Your task to perform on an android device: toggle airplane mode Image 0: 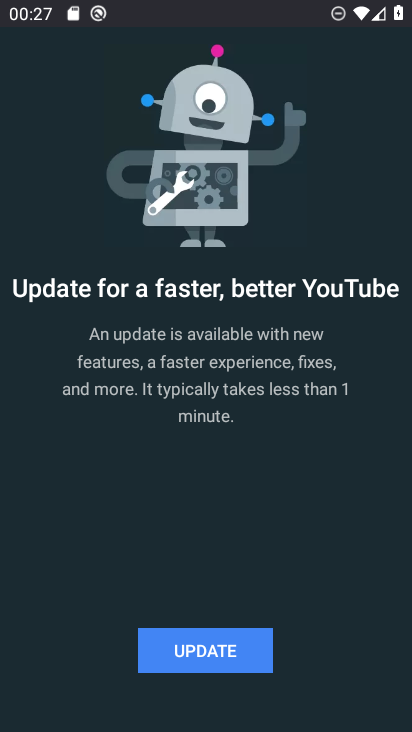
Step 0: press home button
Your task to perform on an android device: toggle airplane mode Image 1: 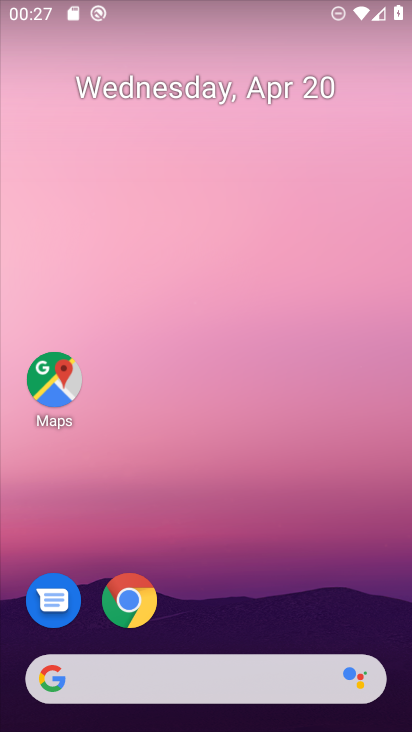
Step 1: drag from (383, 605) to (379, 189)
Your task to perform on an android device: toggle airplane mode Image 2: 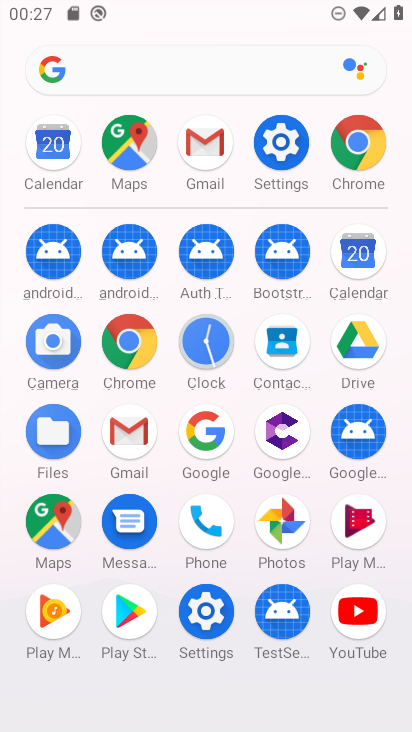
Step 2: click (267, 155)
Your task to perform on an android device: toggle airplane mode Image 3: 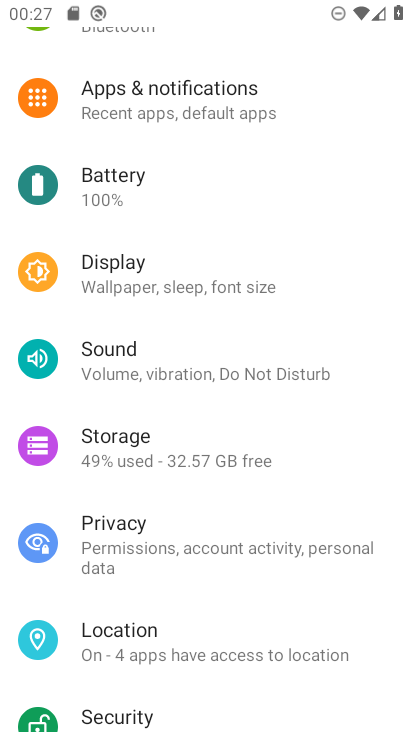
Step 3: drag from (331, 585) to (360, 261)
Your task to perform on an android device: toggle airplane mode Image 4: 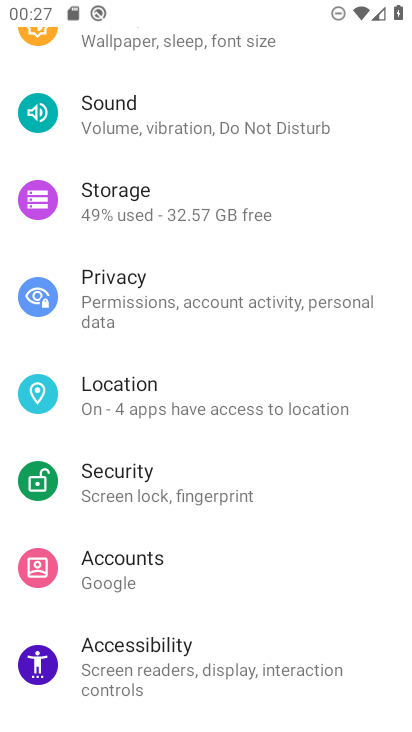
Step 4: drag from (317, 204) to (320, 496)
Your task to perform on an android device: toggle airplane mode Image 5: 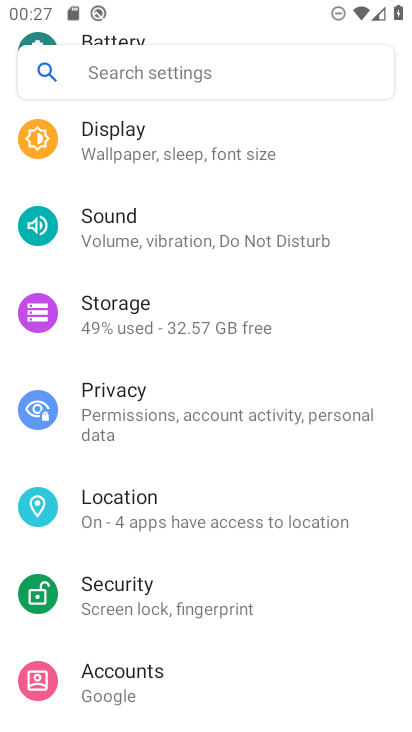
Step 5: drag from (309, 141) to (325, 572)
Your task to perform on an android device: toggle airplane mode Image 6: 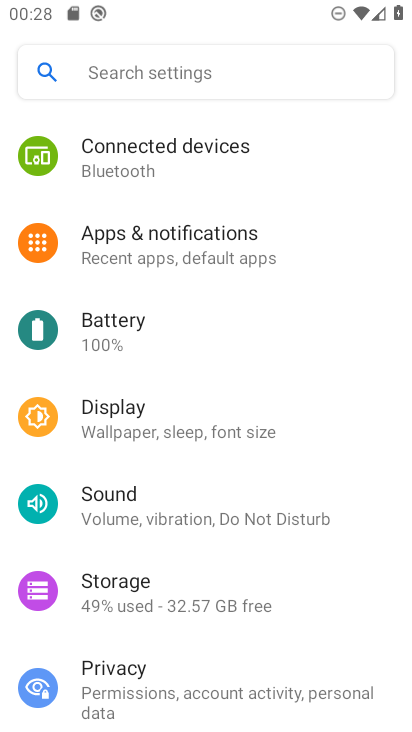
Step 6: drag from (305, 378) to (314, 579)
Your task to perform on an android device: toggle airplane mode Image 7: 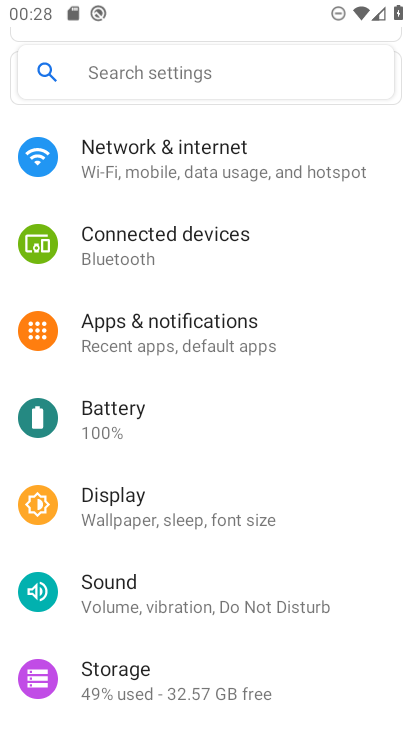
Step 7: click (202, 163)
Your task to perform on an android device: toggle airplane mode Image 8: 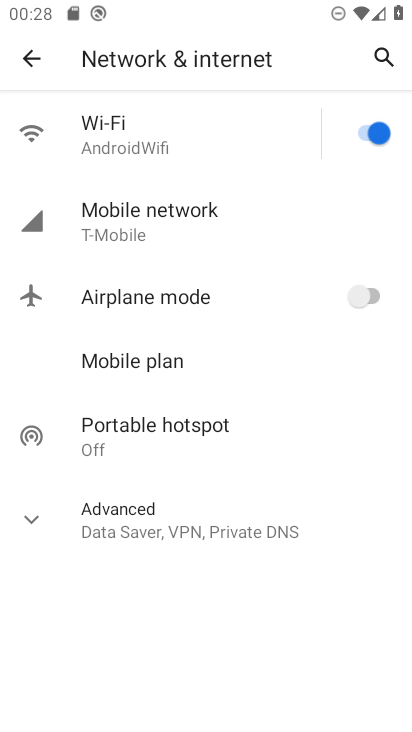
Step 8: click (375, 297)
Your task to perform on an android device: toggle airplane mode Image 9: 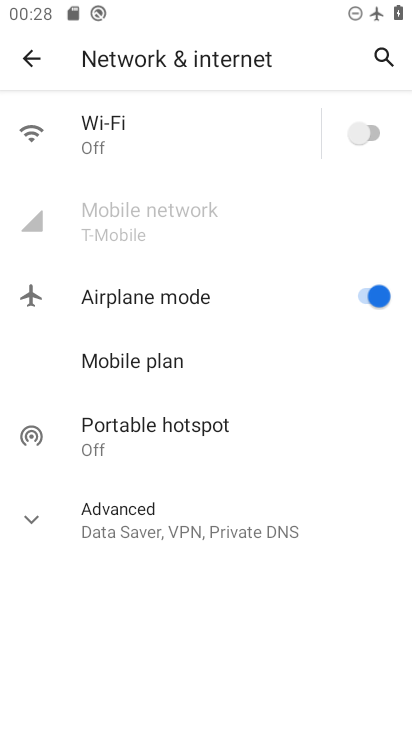
Step 9: task complete